Your task to perform on an android device: What's the weather going to be this weekend? Image 0: 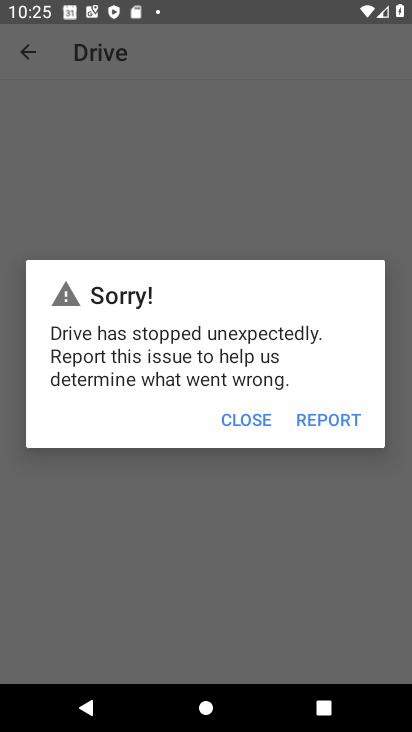
Step 0: press home button
Your task to perform on an android device: What's the weather going to be this weekend? Image 1: 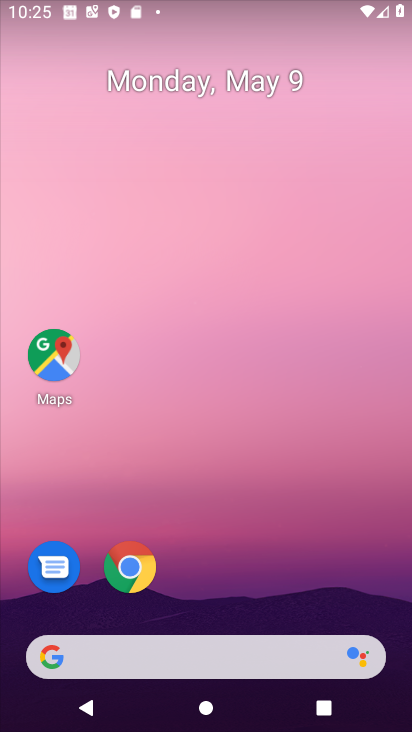
Step 1: drag from (235, 664) to (178, 277)
Your task to perform on an android device: What's the weather going to be this weekend? Image 2: 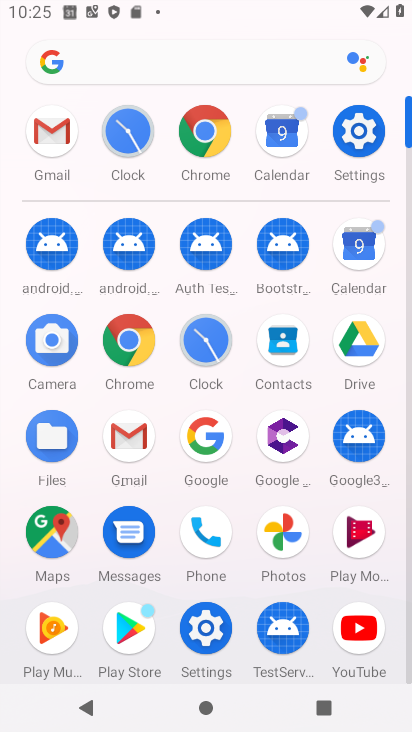
Step 2: click (201, 442)
Your task to perform on an android device: What's the weather going to be this weekend? Image 3: 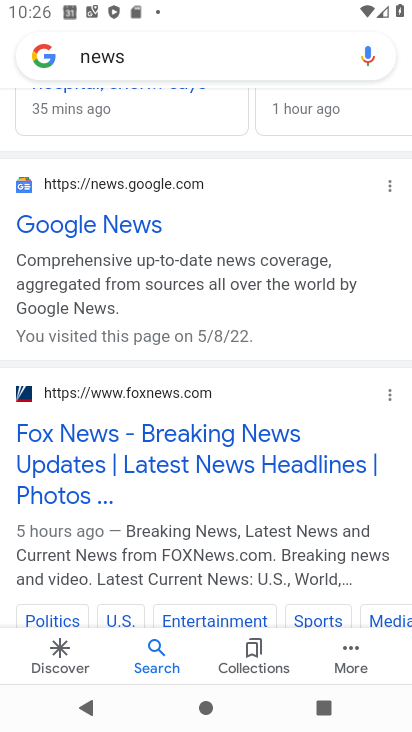
Step 3: click (199, 46)
Your task to perform on an android device: What's the weather going to be this weekend? Image 4: 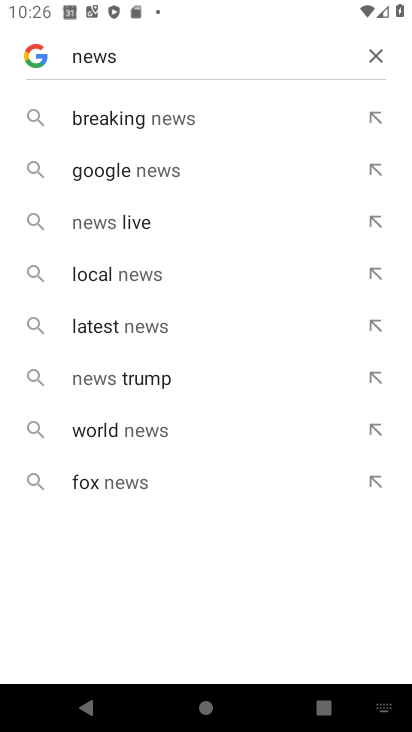
Step 4: click (372, 56)
Your task to perform on an android device: What's the weather going to be this weekend? Image 5: 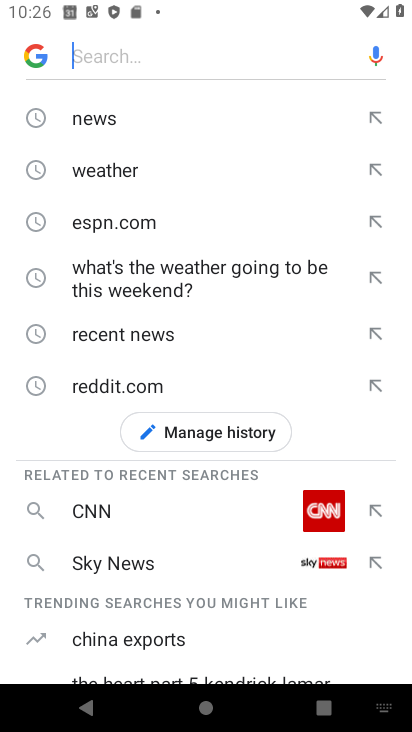
Step 5: type "weather weekend"
Your task to perform on an android device: What's the weather going to be this weekend? Image 6: 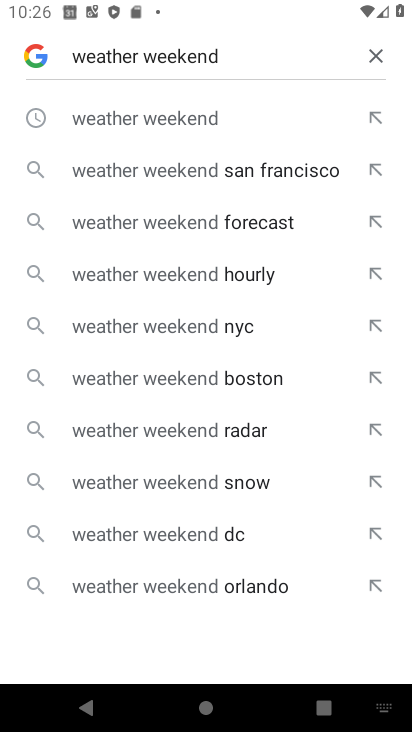
Step 6: click (138, 121)
Your task to perform on an android device: What's the weather going to be this weekend? Image 7: 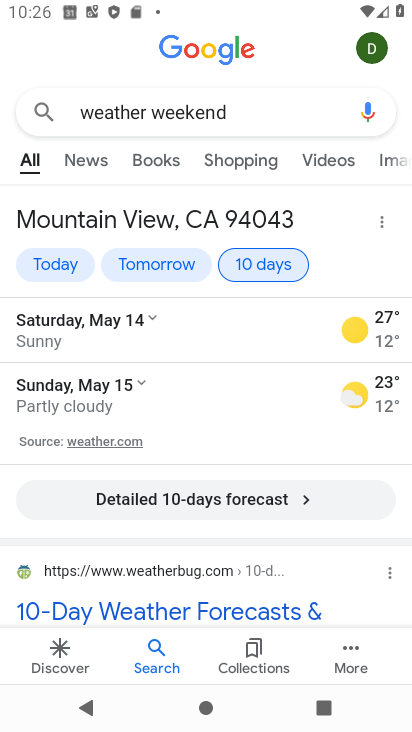
Step 7: click (198, 495)
Your task to perform on an android device: What's the weather going to be this weekend? Image 8: 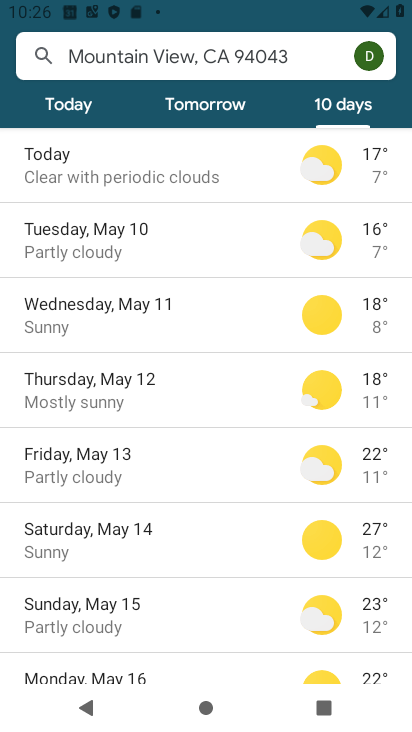
Step 8: task complete